Your task to perform on an android device: Search for seafood restaurants on Google Maps Image 0: 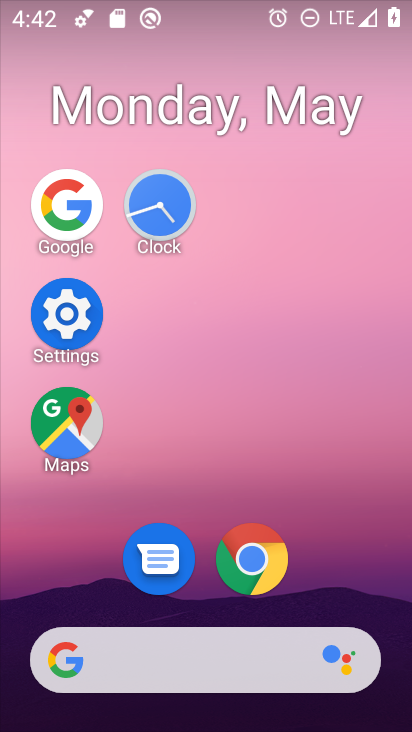
Step 0: click (60, 418)
Your task to perform on an android device: Search for seafood restaurants on Google Maps Image 1: 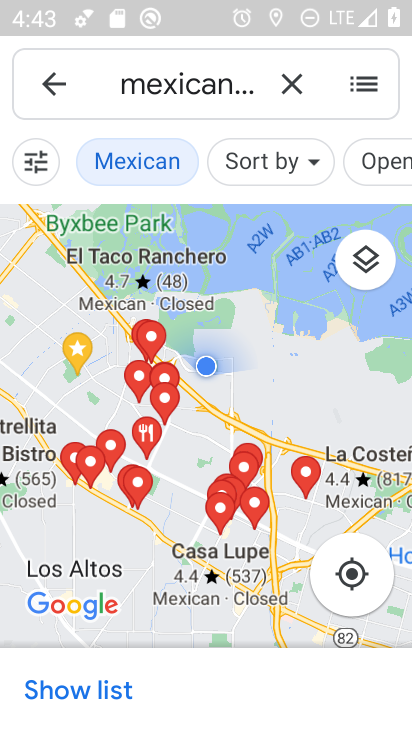
Step 1: click (296, 79)
Your task to perform on an android device: Search for seafood restaurants on Google Maps Image 2: 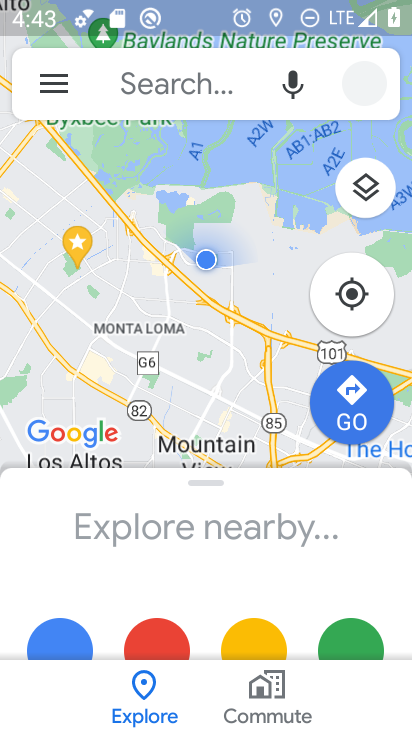
Step 2: click (151, 87)
Your task to perform on an android device: Search for seafood restaurants on Google Maps Image 3: 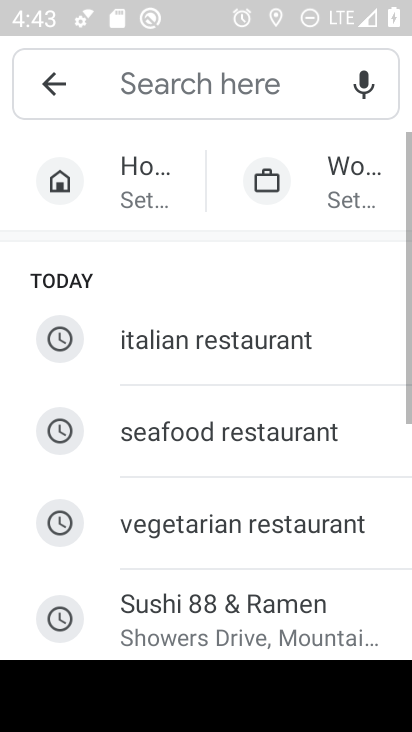
Step 3: drag from (243, 582) to (267, 229)
Your task to perform on an android device: Search for seafood restaurants on Google Maps Image 4: 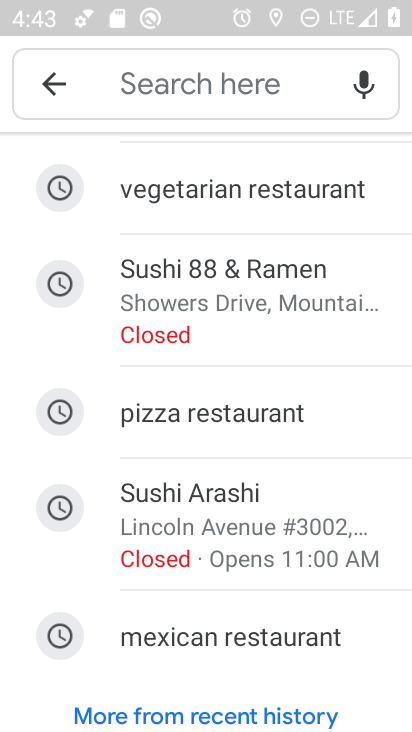
Step 4: drag from (303, 270) to (297, 480)
Your task to perform on an android device: Search for seafood restaurants on Google Maps Image 5: 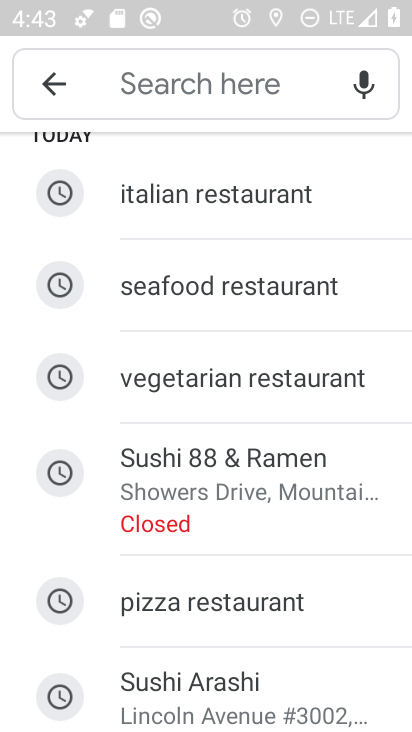
Step 5: click (274, 288)
Your task to perform on an android device: Search for seafood restaurants on Google Maps Image 6: 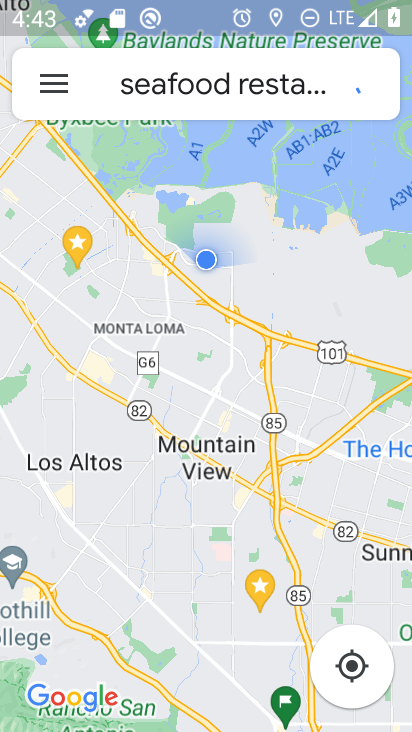
Step 6: task complete